Your task to perform on an android device: open wifi settings Image 0: 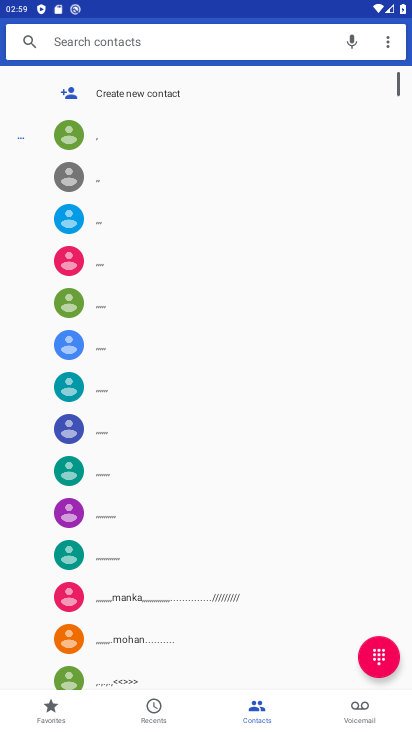
Step 0: drag from (180, 15) to (167, 504)
Your task to perform on an android device: open wifi settings Image 1: 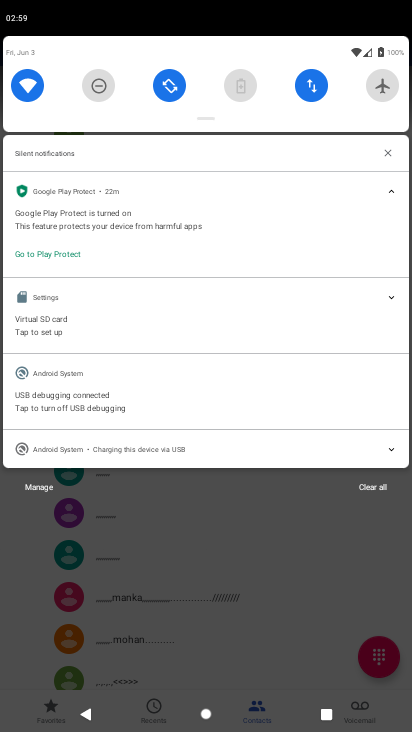
Step 1: click (46, 95)
Your task to perform on an android device: open wifi settings Image 2: 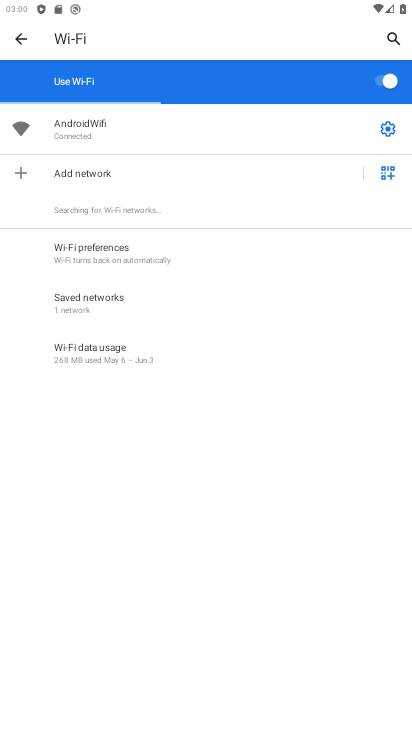
Step 2: task complete